Your task to perform on an android device: remove spam from my inbox in the gmail app Image 0: 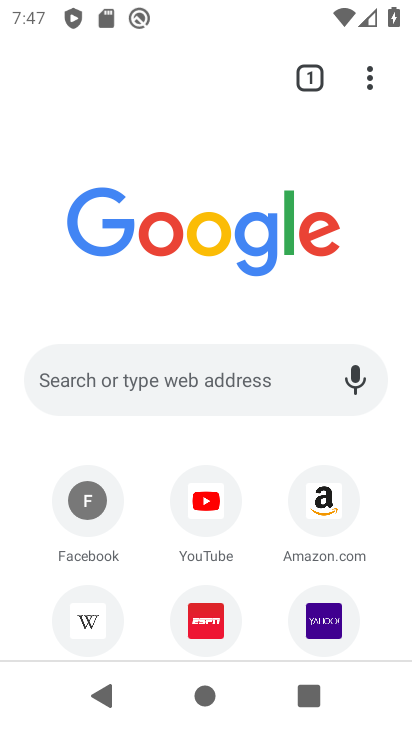
Step 0: press back button
Your task to perform on an android device: remove spam from my inbox in the gmail app Image 1: 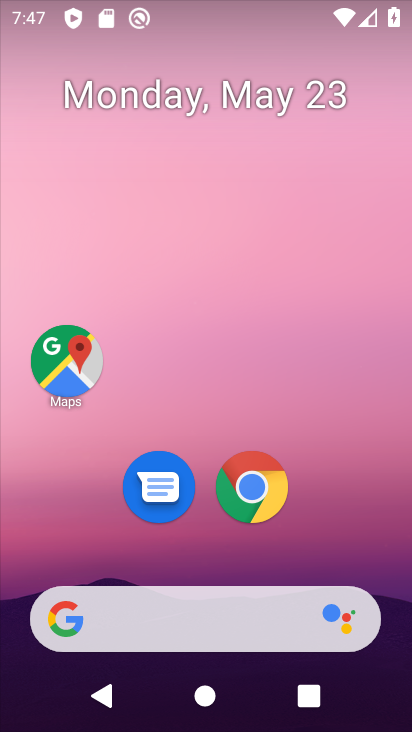
Step 1: drag from (313, 541) to (243, 53)
Your task to perform on an android device: remove spam from my inbox in the gmail app Image 2: 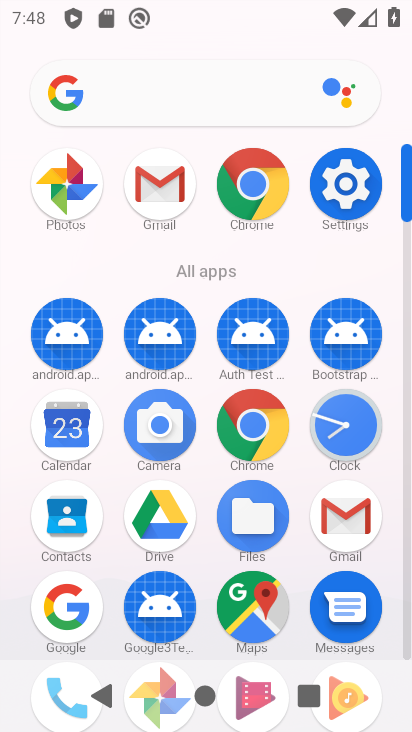
Step 2: drag from (6, 526) to (0, 148)
Your task to perform on an android device: remove spam from my inbox in the gmail app Image 3: 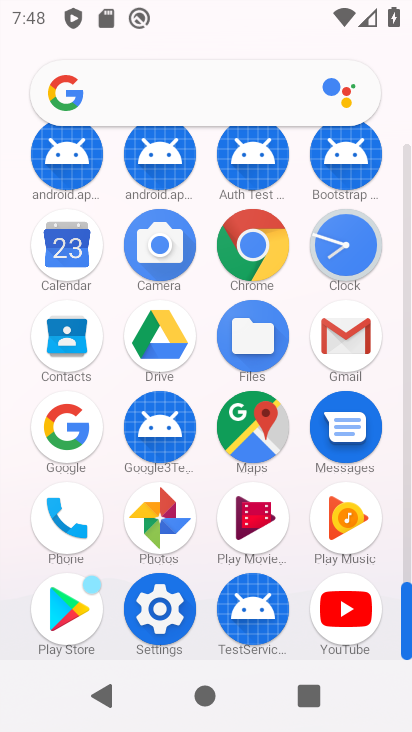
Step 3: click (344, 328)
Your task to perform on an android device: remove spam from my inbox in the gmail app Image 4: 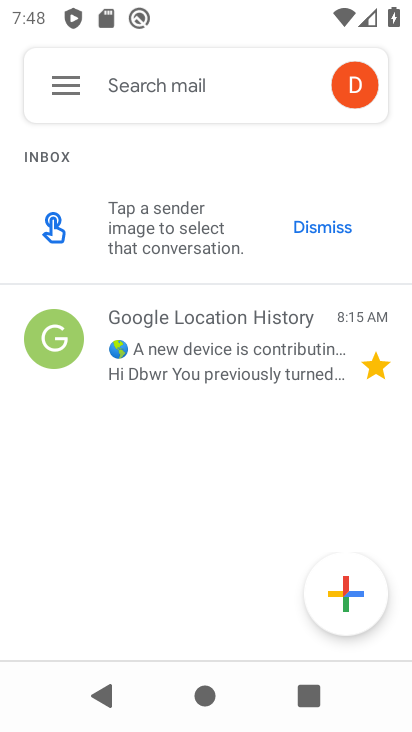
Step 4: click (55, 69)
Your task to perform on an android device: remove spam from my inbox in the gmail app Image 5: 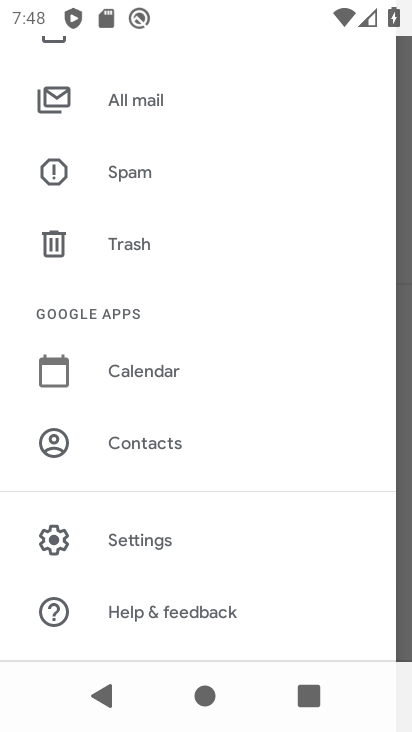
Step 5: click (174, 174)
Your task to perform on an android device: remove spam from my inbox in the gmail app Image 6: 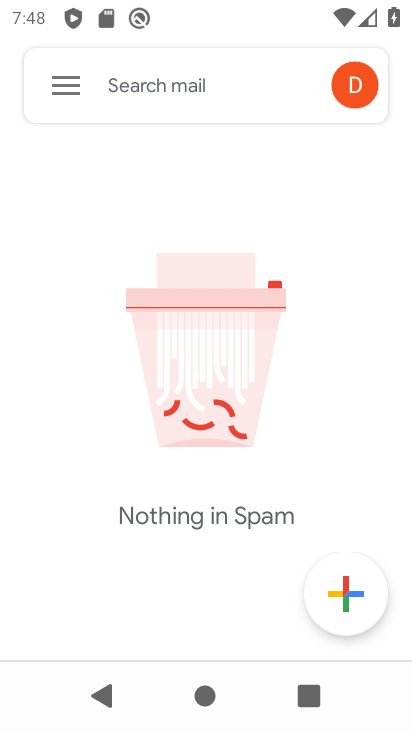
Step 6: task complete